Your task to perform on an android device: delete the emails in spam in the gmail app Image 0: 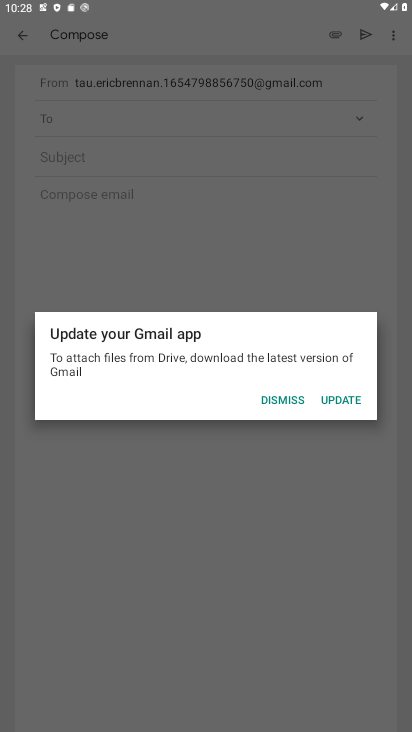
Step 0: click (289, 392)
Your task to perform on an android device: delete the emails in spam in the gmail app Image 1: 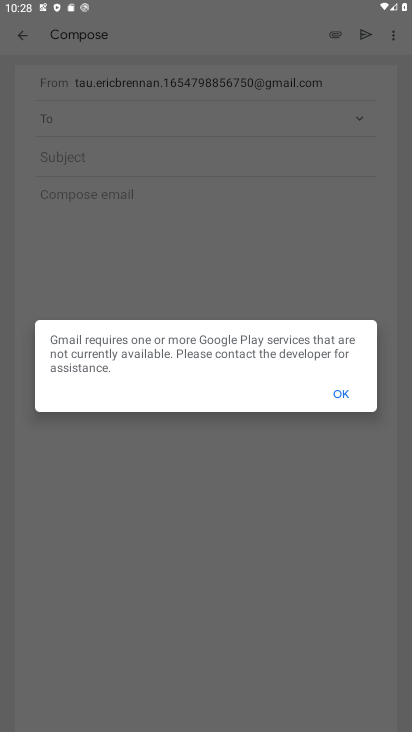
Step 1: click (342, 391)
Your task to perform on an android device: delete the emails in spam in the gmail app Image 2: 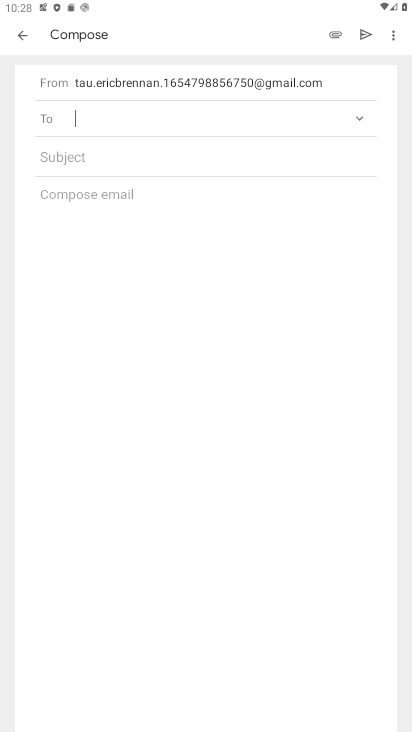
Step 2: click (17, 39)
Your task to perform on an android device: delete the emails in spam in the gmail app Image 3: 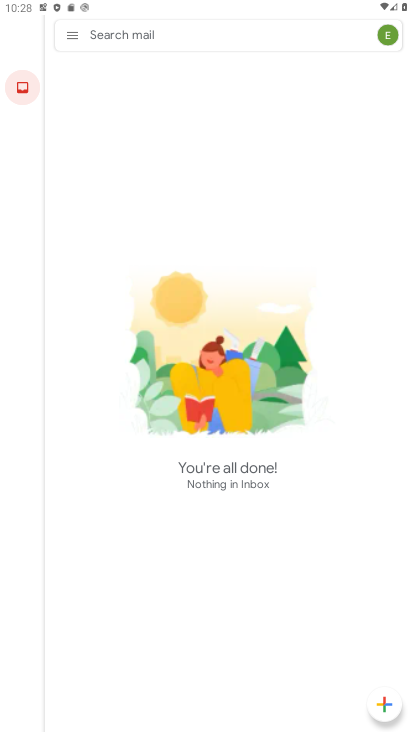
Step 3: click (68, 34)
Your task to perform on an android device: delete the emails in spam in the gmail app Image 4: 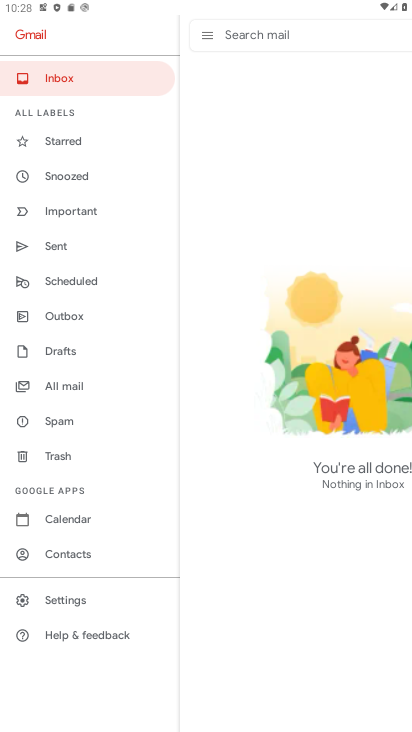
Step 4: click (56, 418)
Your task to perform on an android device: delete the emails in spam in the gmail app Image 5: 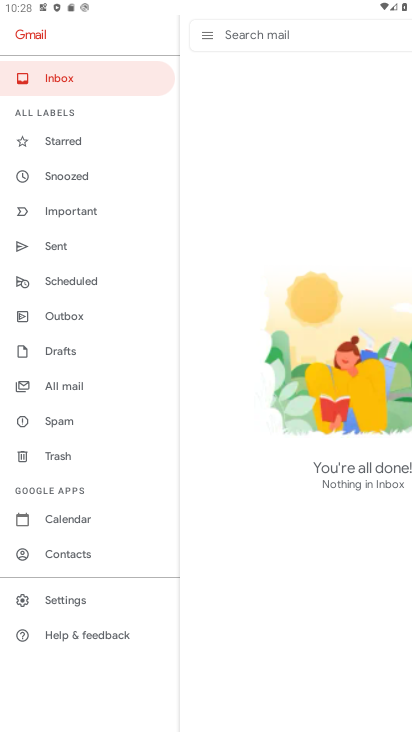
Step 5: click (57, 417)
Your task to perform on an android device: delete the emails in spam in the gmail app Image 6: 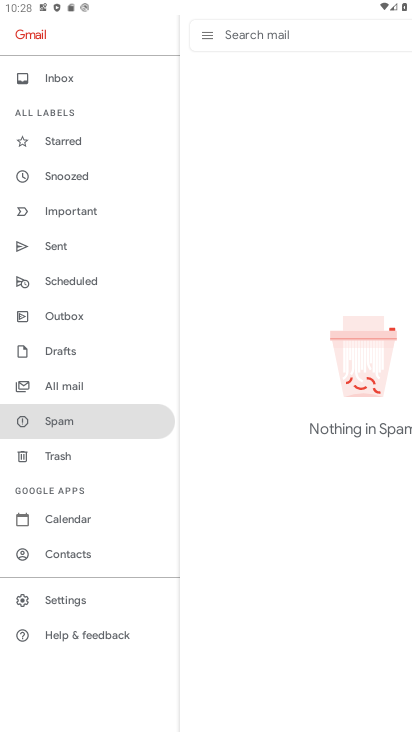
Step 6: task complete